Your task to perform on an android device: turn on showing notifications on the lock screen Image 0: 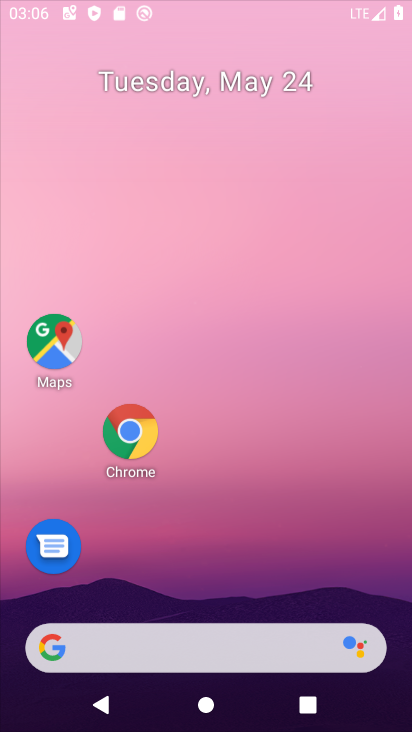
Step 0: click (266, 240)
Your task to perform on an android device: turn on showing notifications on the lock screen Image 1: 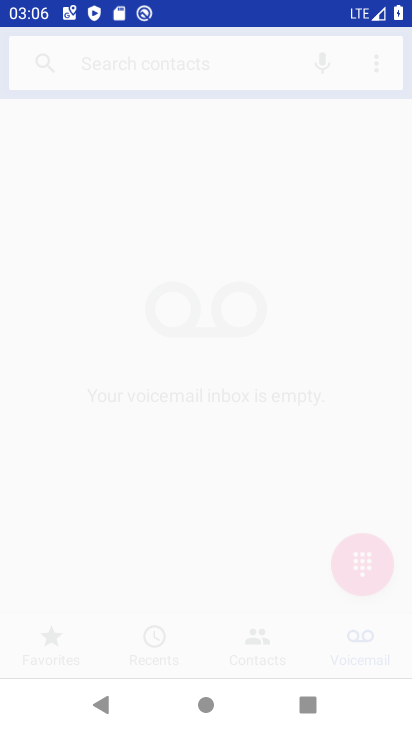
Step 1: drag from (242, 604) to (301, 28)
Your task to perform on an android device: turn on showing notifications on the lock screen Image 2: 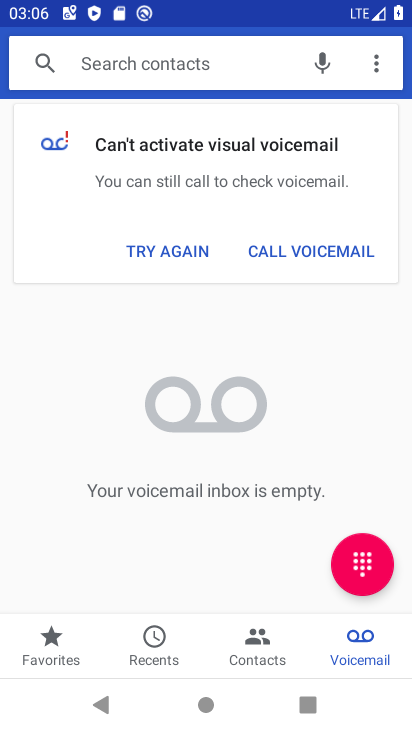
Step 2: drag from (216, 523) to (260, 232)
Your task to perform on an android device: turn on showing notifications on the lock screen Image 3: 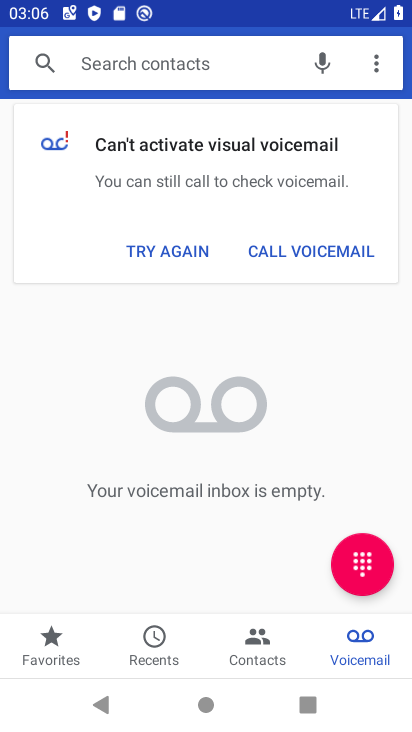
Step 3: drag from (247, 491) to (282, 221)
Your task to perform on an android device: turn on showing notifications on the lock screen Image 4: 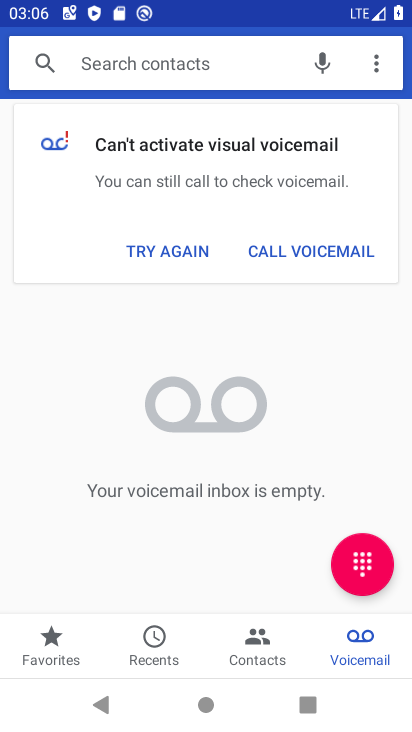
Step 4: drag from (207, 577) to (272, 242)
Your task to perform on an android device: turn on showing notifications on the lock screen Image 5: 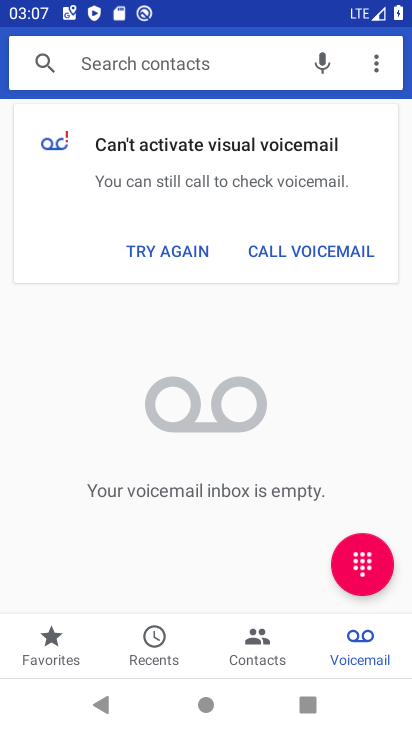
Step 5: drag from (210, 516) to (314, 149)
Your task to perform on an android device: turn on showing notifications on the lock screen Image 6: 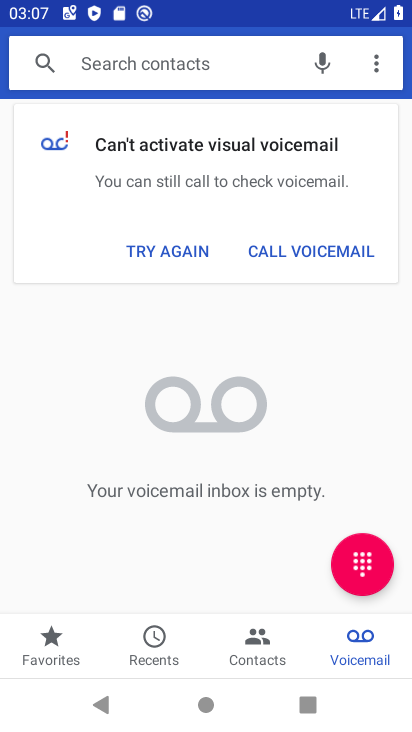
Step 6: press home button
Your task to perform on an android device: turn on showing notifications on the lock screen Image 7: 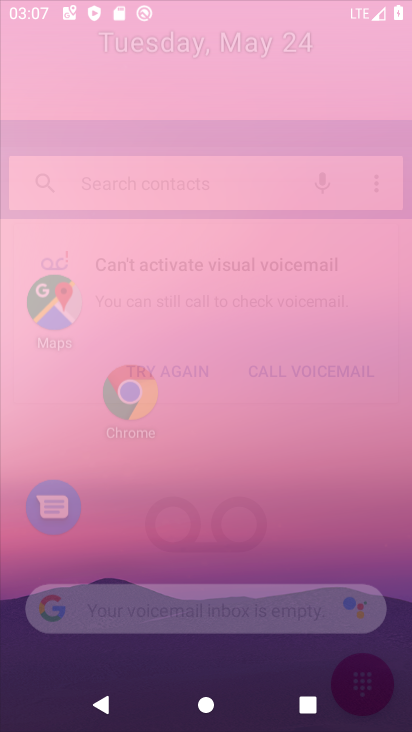
Step 7: drag from (223, 528) to (281, 34)
Your task to perform on an android device: turn on showing notifications on the lock screen Image 8: 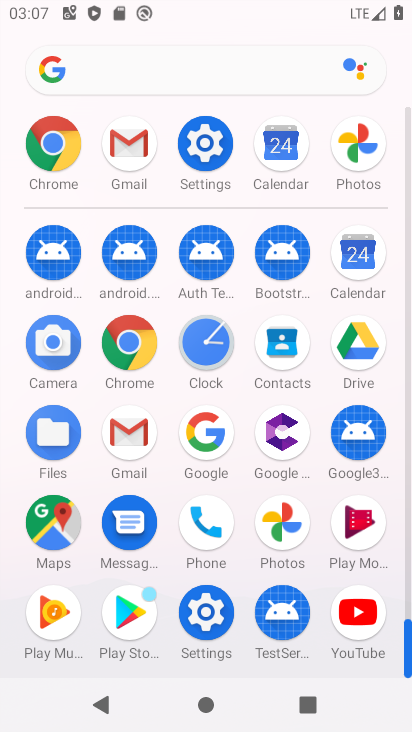
Step 8: click (215, 133)
Your task to perform on an android device: turn on showing notifications on the lock screen Image 9: 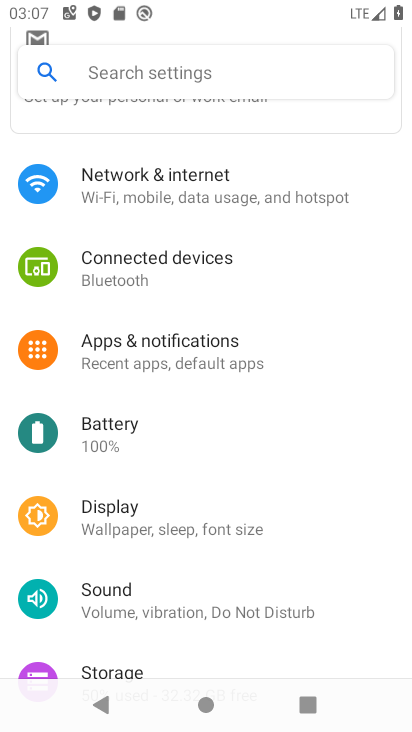
Step 9: drag from (220, 527) to (278, 150)
Your task to perform on an android device: turn on showing notifications on the lock screen Image 10: 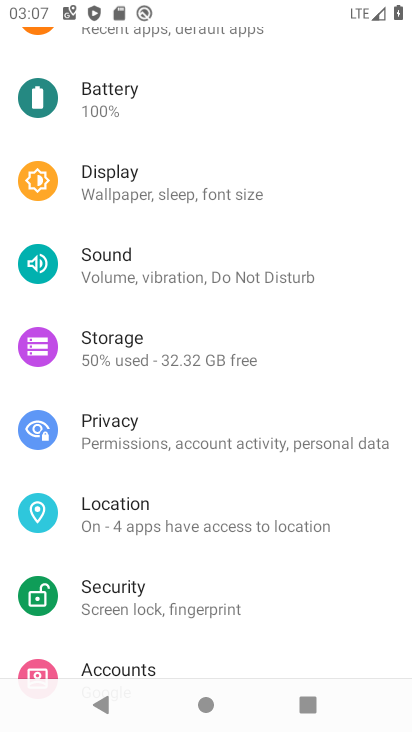
Step 10: drag from (229, 575) to (241, 195)
Your task to perform on an android device: turn on showing notifications on the lock screen Image 11: 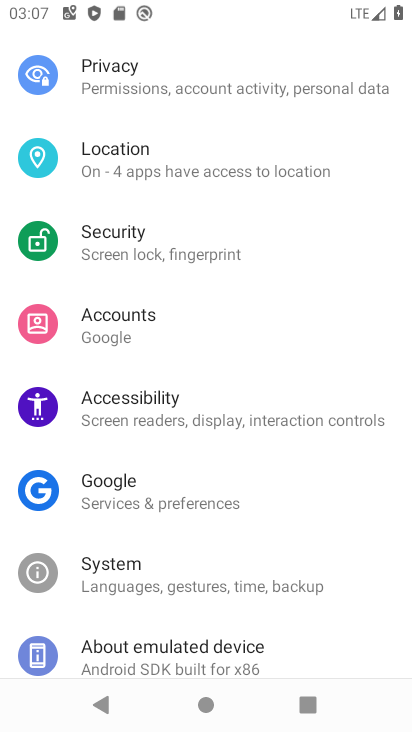
Step 11: click (162, 176)
Your task to perform on an android device: turn on showing notifications on the lock screen Image 12: 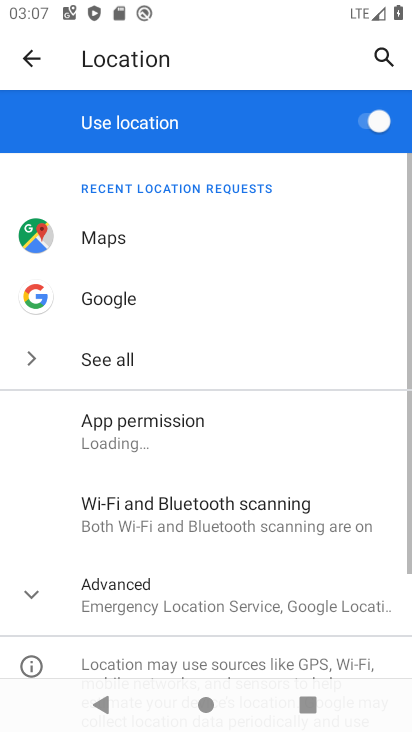
Step 12: drag from (281, 429) to (348, 97)
Your task to perform on an android device: turn on showing notifications on the lock screen Image 13: 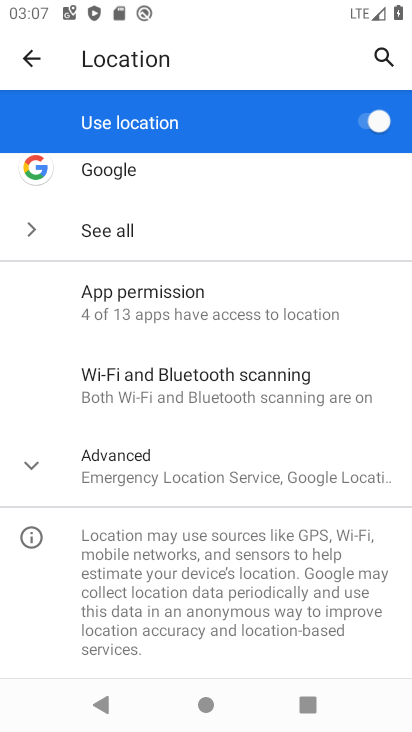
Step 13: click (41, 63)
Your task to perform on an android device: turn on showing notifications on the lock screen Image 14: 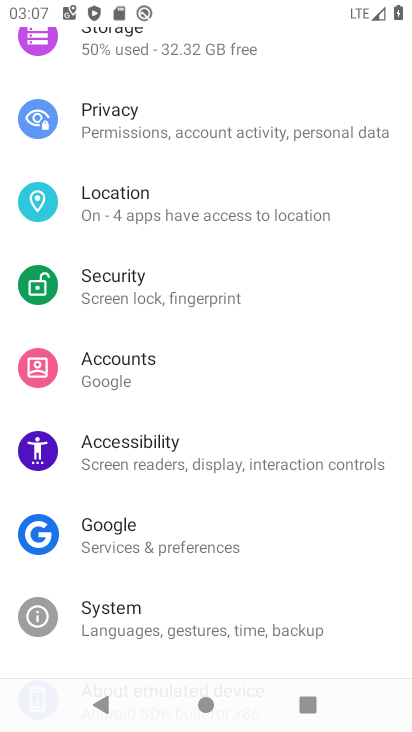
Step 14: drag from (304, 254) to (276, 730)
Your task to perform on an android device: turn on showing notifications on the lock screen Image 15: 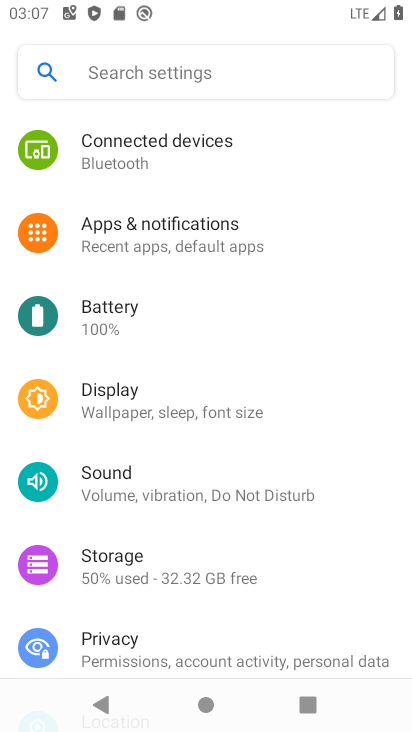
Step 15: click (160, 255)
Your task to perform on an android device: turn on showing notifications on the lock screen Image 16: 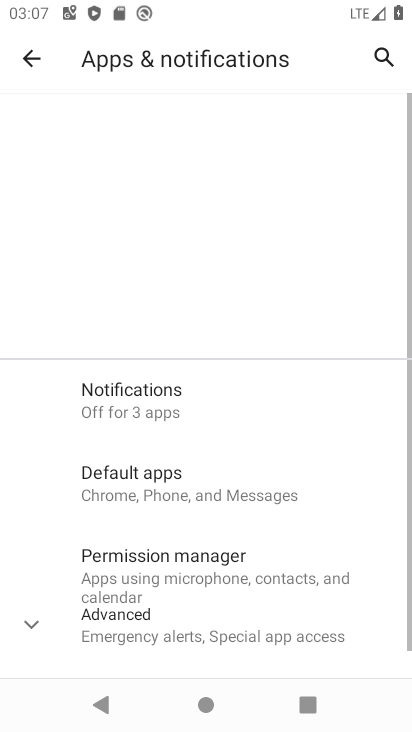
Step 16: drag from (257, 439) to (324, 57)
Your task to perform on an android device: turn on showing notifications on the lock screen Image 17: 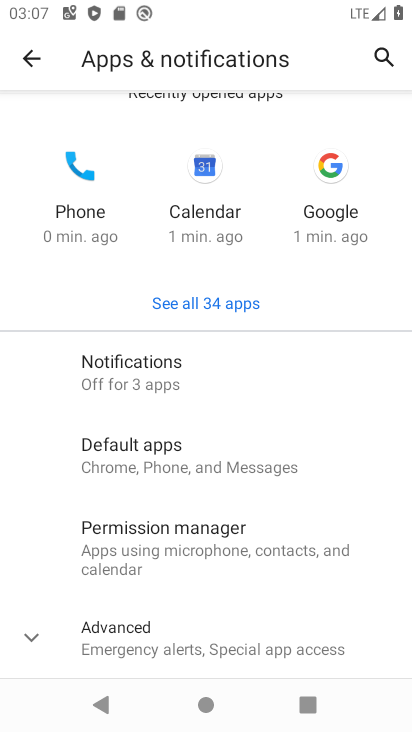
Step 17: click (197, 351)
Your task to perform on an android device: turn on showing notifications on the lock screen Image 18: 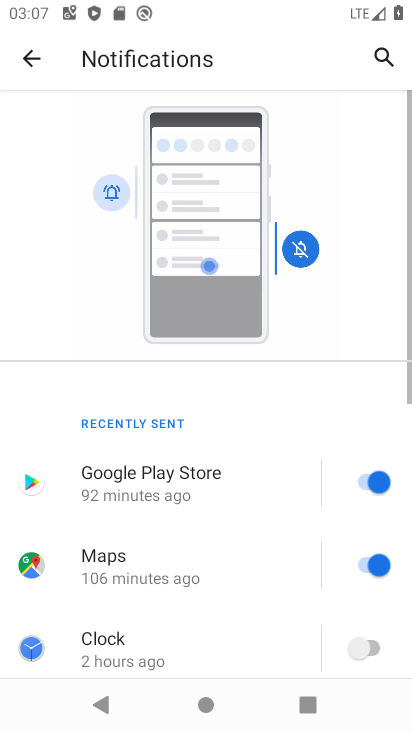
Step 18: drag from (212, 572) to (365, 78)
Your task to perform on an android device: turn on showing notifications on the lock screen Image 19: 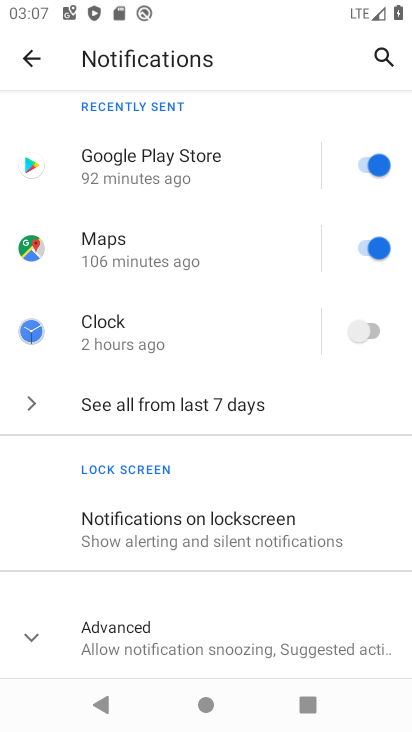
Step 19: click (237, 522)
Your task to perform on an android device: turn on showing notifications on the lock screen Image 20: 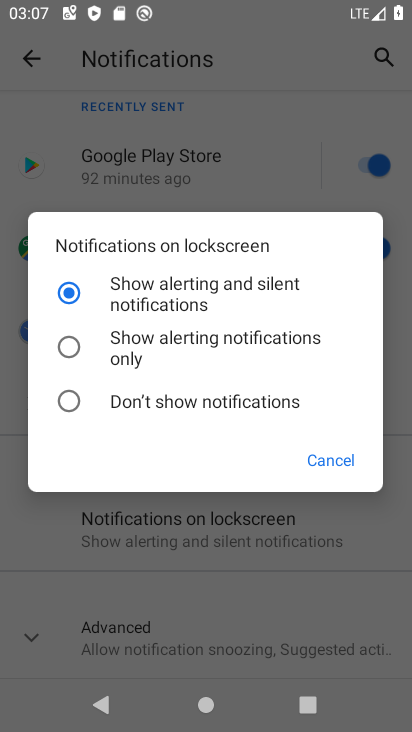
Step 20: click (92, 337)
Your task to perform on an android device: turn on showing notifications on the lock screen Image 21: 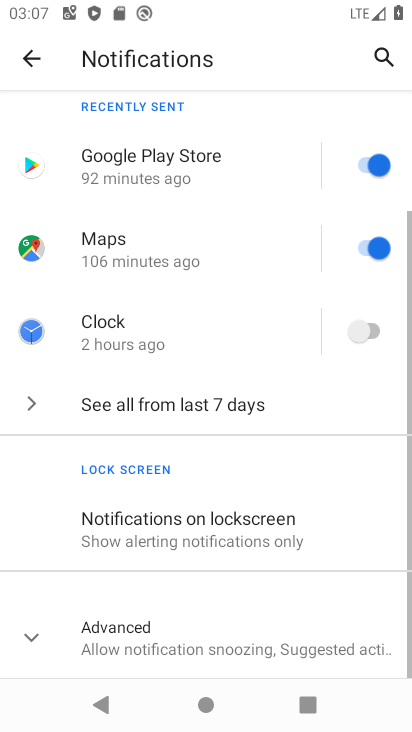
Step 21: task complete